Your task to perform on an android device: toggle wifi Image 0: 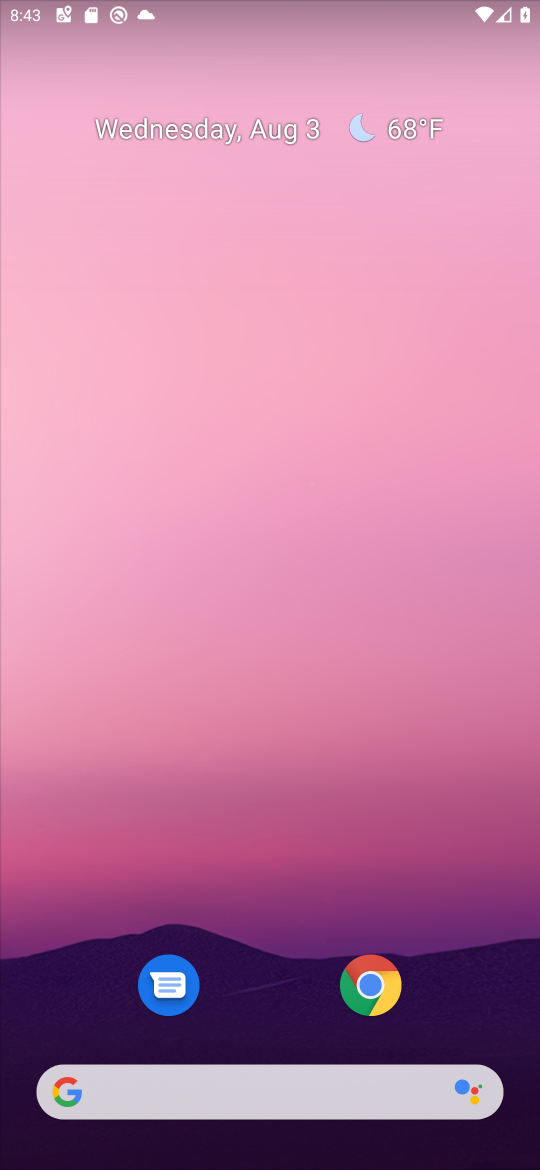
Step 0: drag from (247, 962) to (252, 304)
Your task to perform on an android device: toggle wifi Image 1: 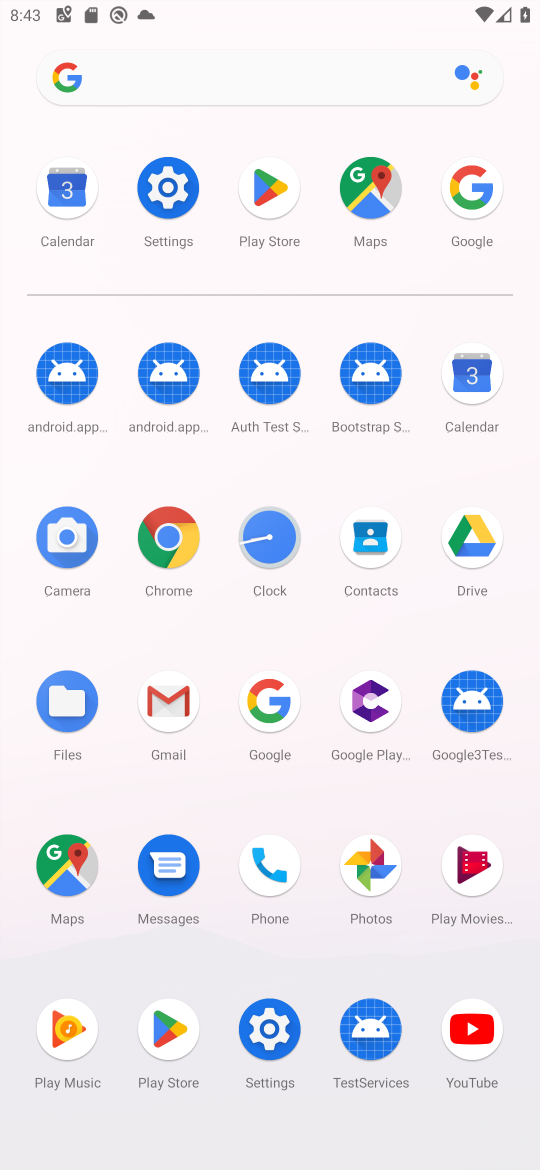
Step 1: click (140, 200)
Your task to perform on an android device: toggle wifi Image 2: 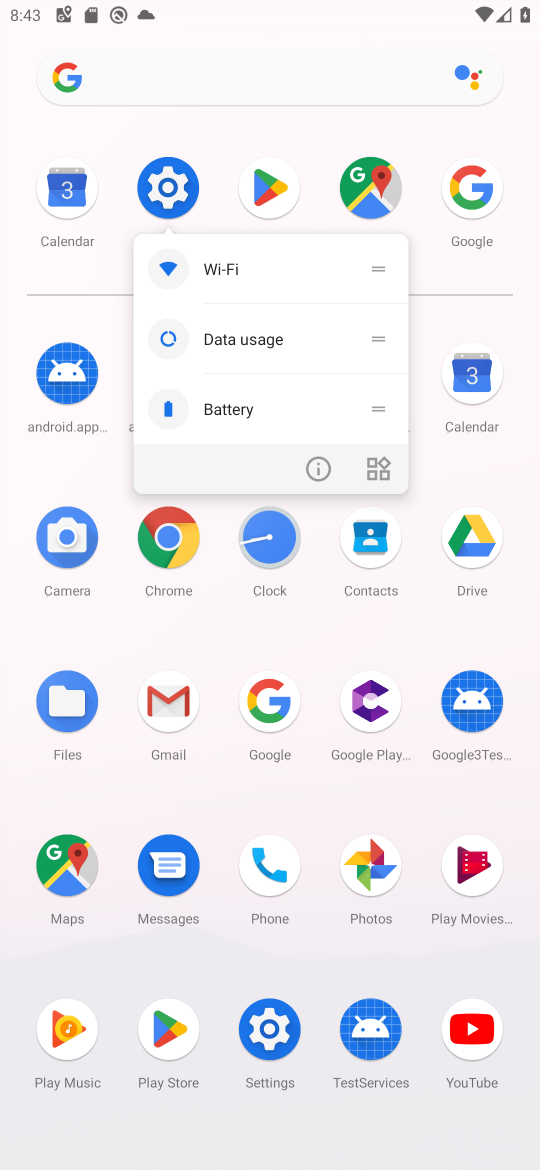
Step 2: click (173, 189)
Your task to perform on an android device: toggle wifi Image 3: 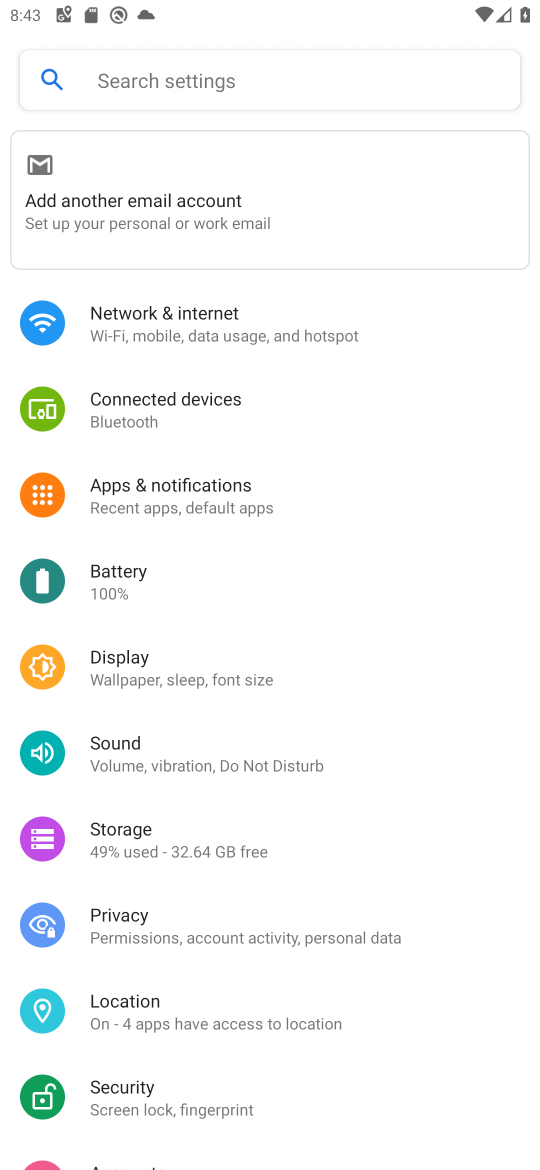
Step 3: click (245, 324)
Your task to perform on an android device: toggle wifi Image 4: 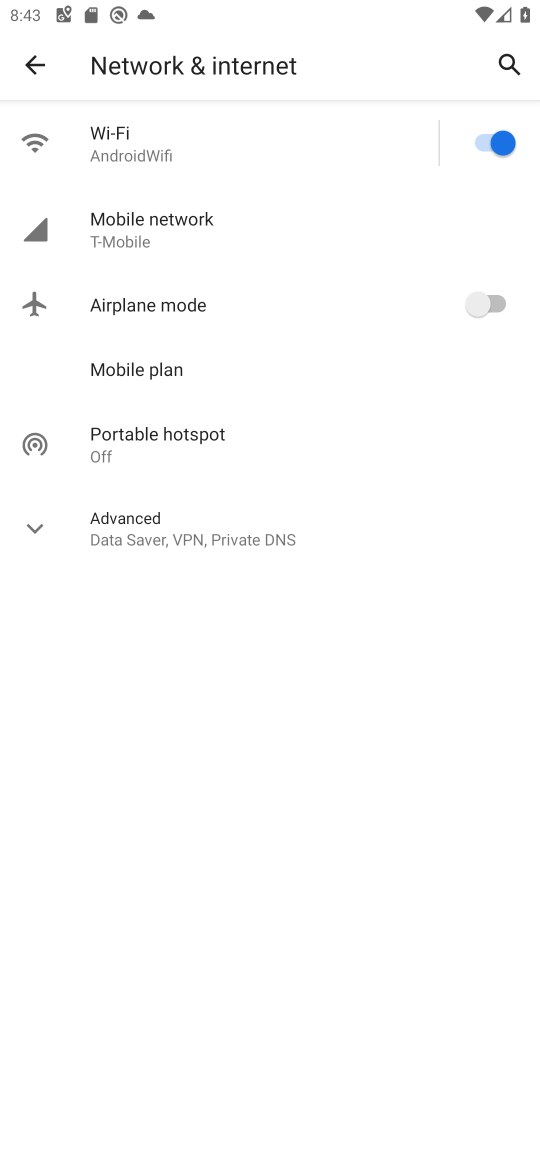
Step 4: click (466, 141)
Your task to perform on an android device: toggle wifi Image 5: 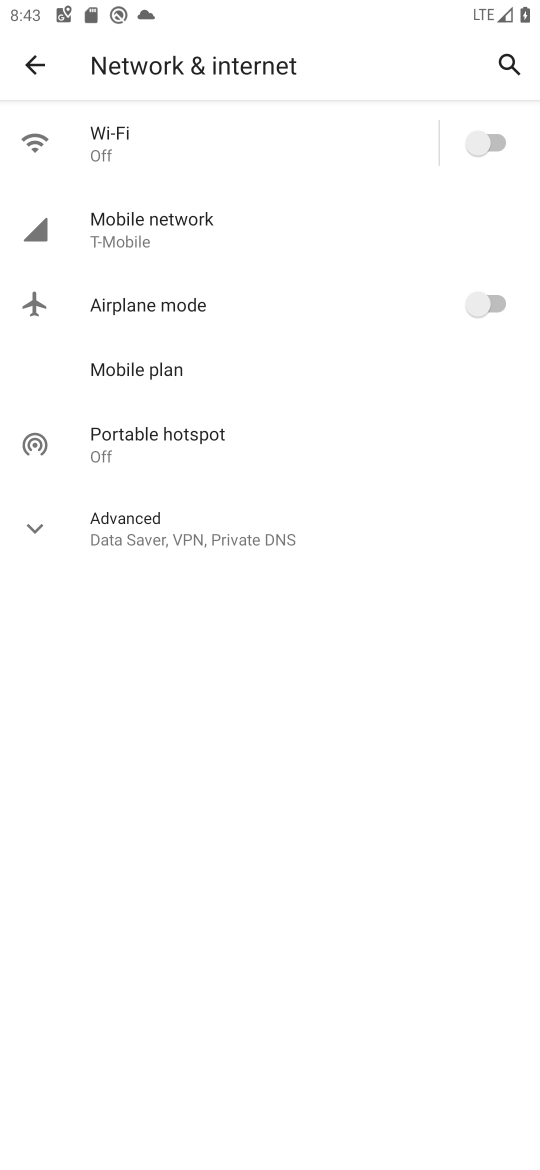
Step 5: task complete